Your task to perform on an android device: What's the news in Nepal? Image 0: 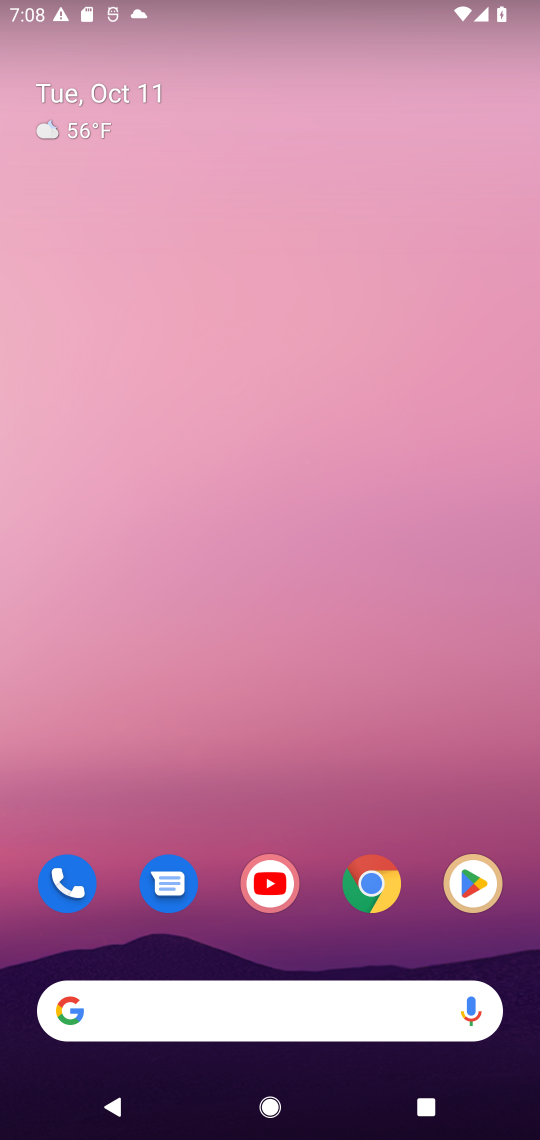
Step 0: drag from (321, 950) to (380, 108)
Your task to perform on an android device: What's the news in Nepal? Image 1: 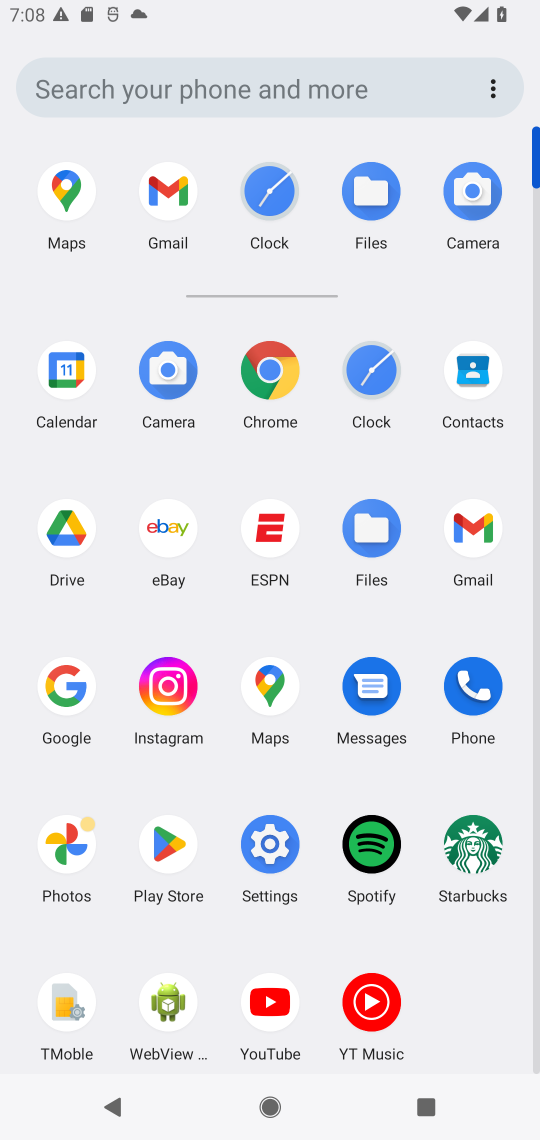
Step 1: click (271, 376)
Your task to perform on an android device: What's the news in Nepal? Image 2: 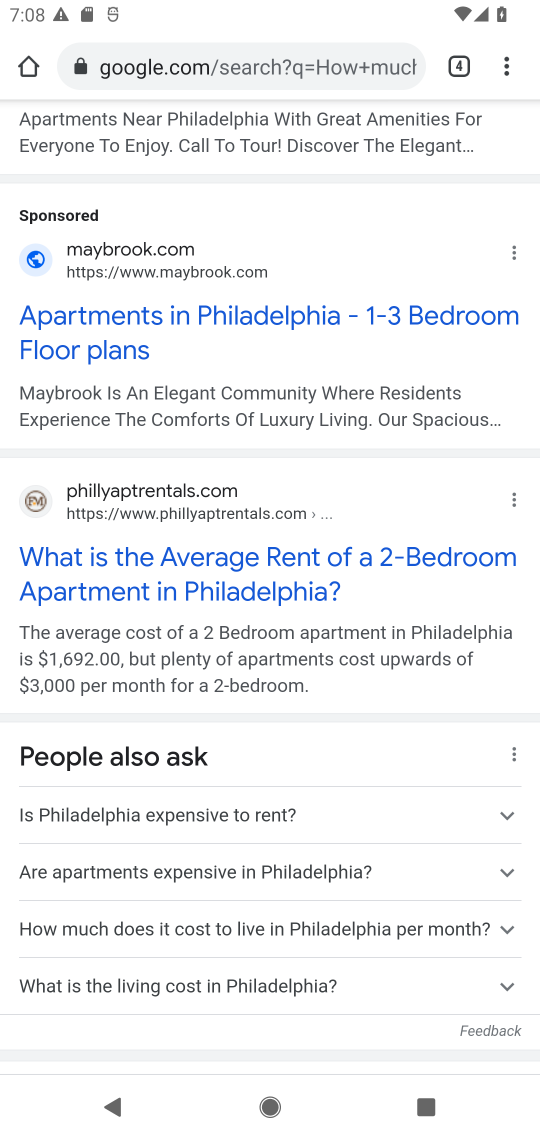
Step 2: click (258, 61)
Your task to perform on an android device: What's the news in Nepal? Image 3: 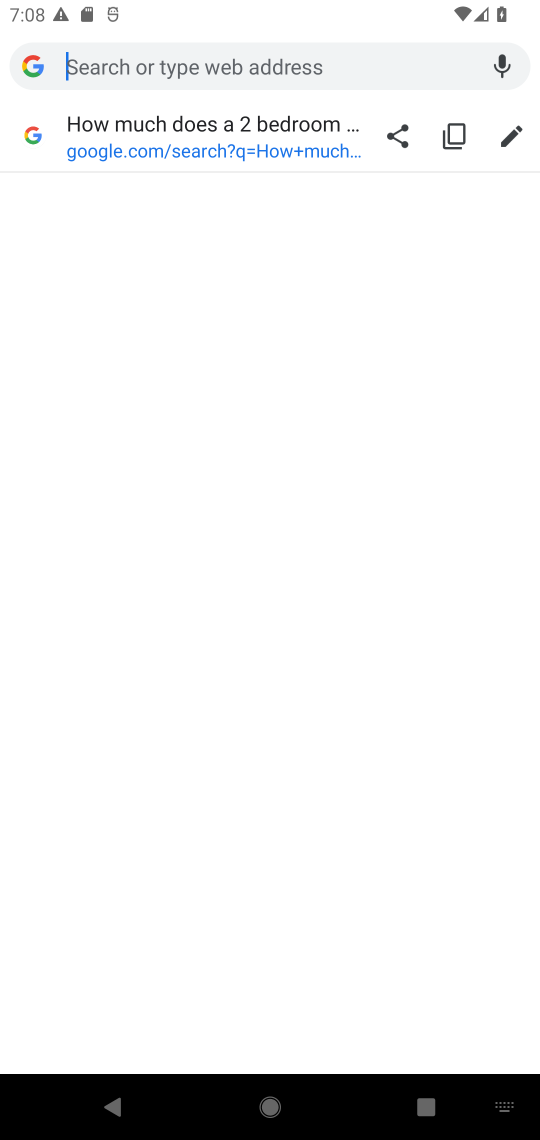
Step 3: type "What's the news in Nepal?"
Your task to perform on an android device: What's the news in Nepal? Image 4: 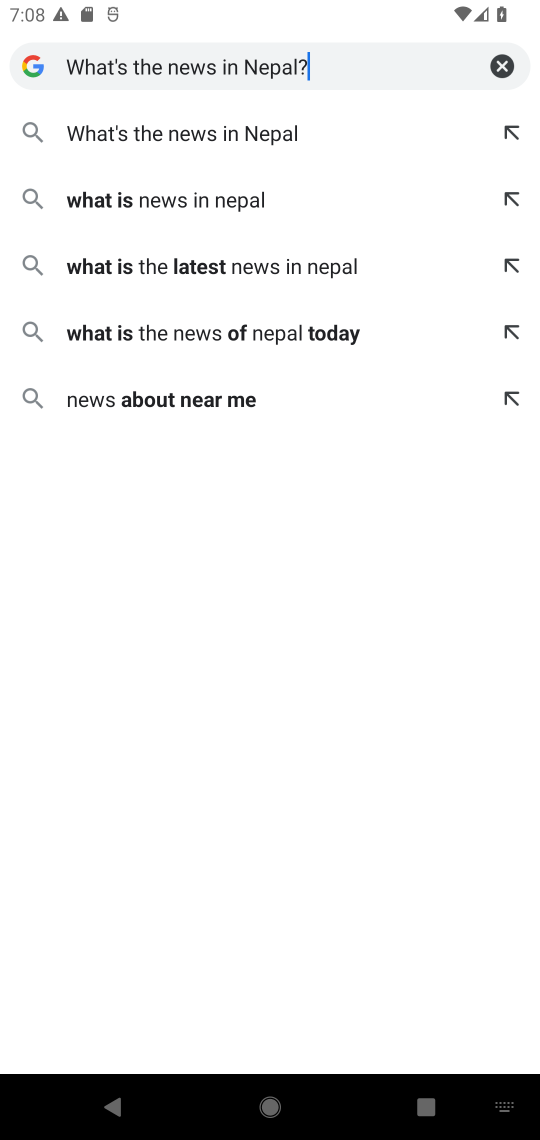
Step 4: press enter
Your task to perform on an android device: What's the news in Nepal? Image 5: 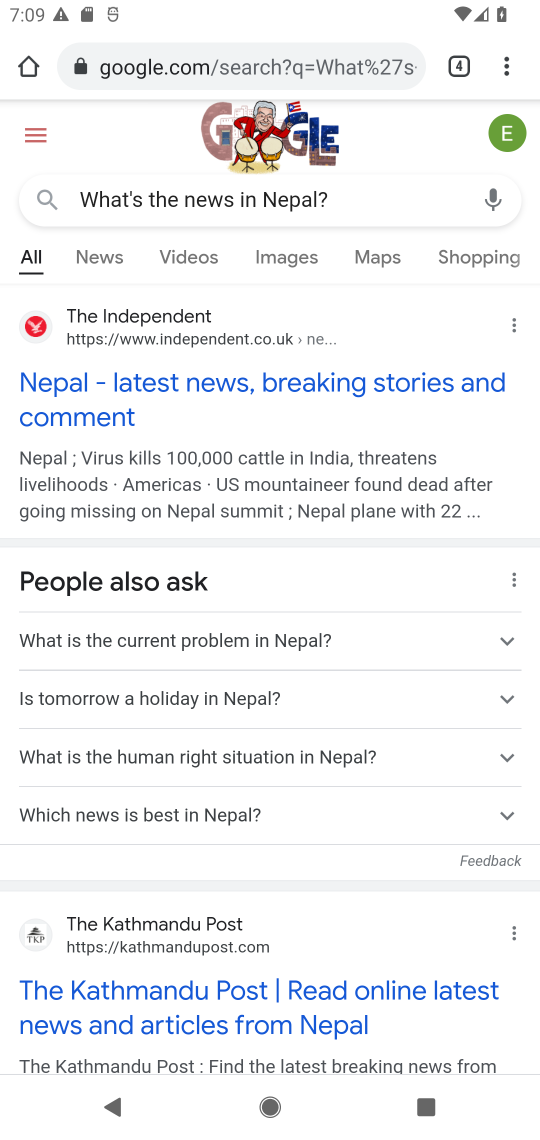
Step 5: click (322, 382)
Your task to perform on an android device: What's the news in Nepal? Image 6: 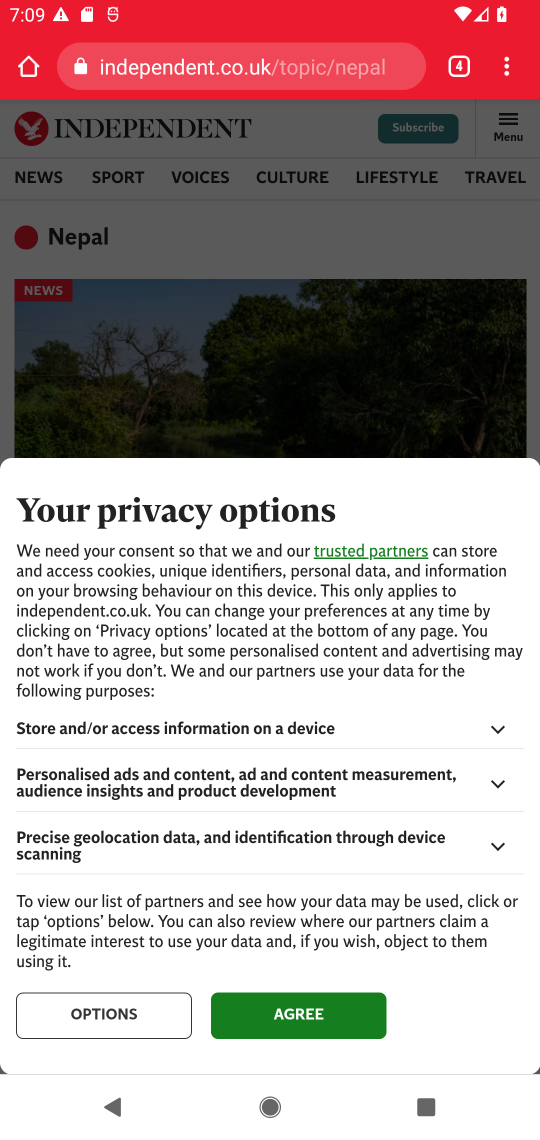
Step 6: click (301, 320)
Your task to perform on an android device: What's the news in Nepal? Image 7: 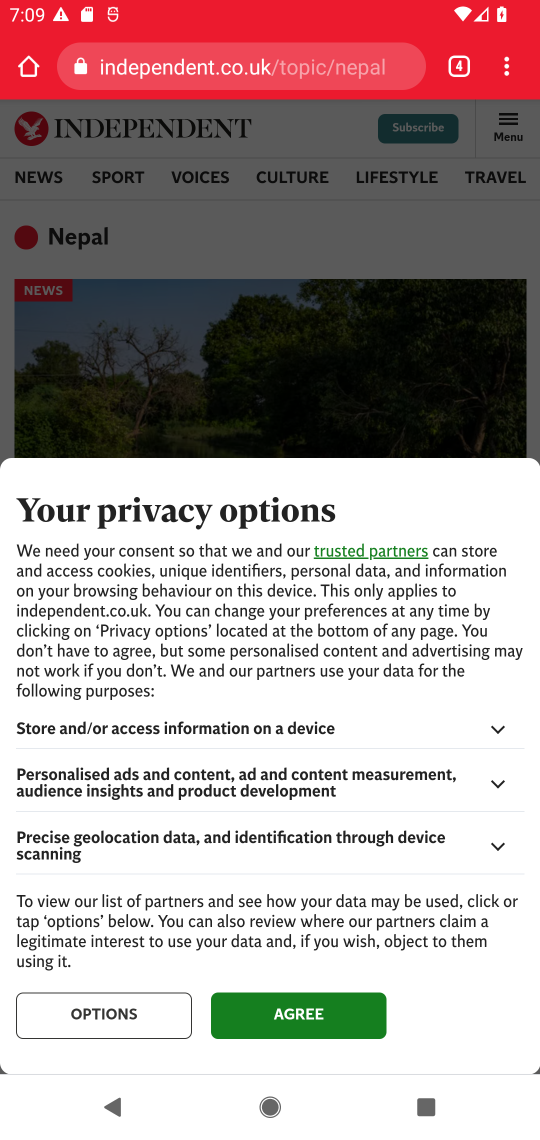
Step 7: click (329, 1003)
Your task to perform on an android device: What's the news in Nepal? Image 8: 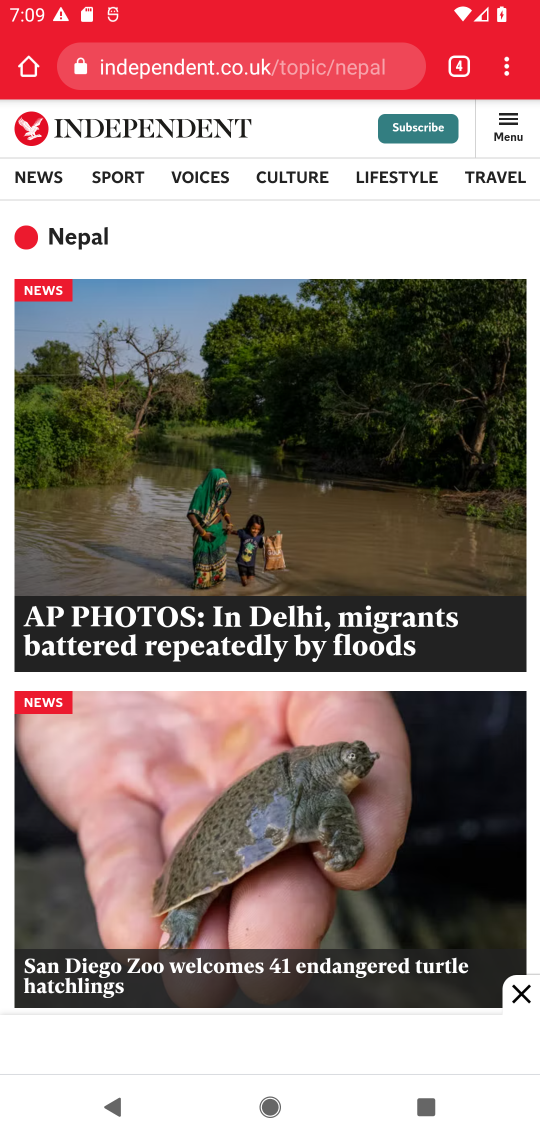
Step 8: task complete